Your task to perform on an android device: Empty the shopping cart on newegg.com. Image 0: 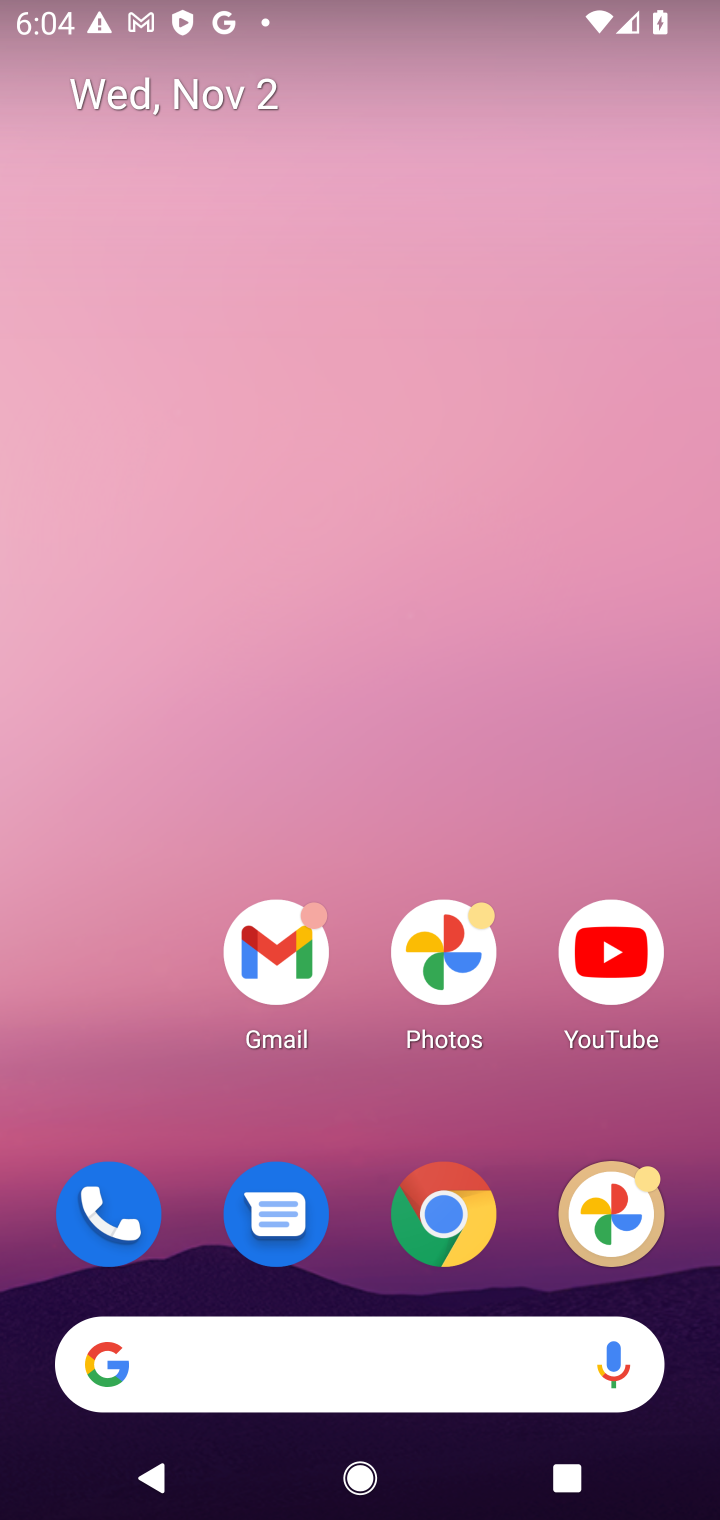
Step 0: click (446, 1208)
Your task to perform on an android device: Empty the shopping cart on newegg.com. Image 1: 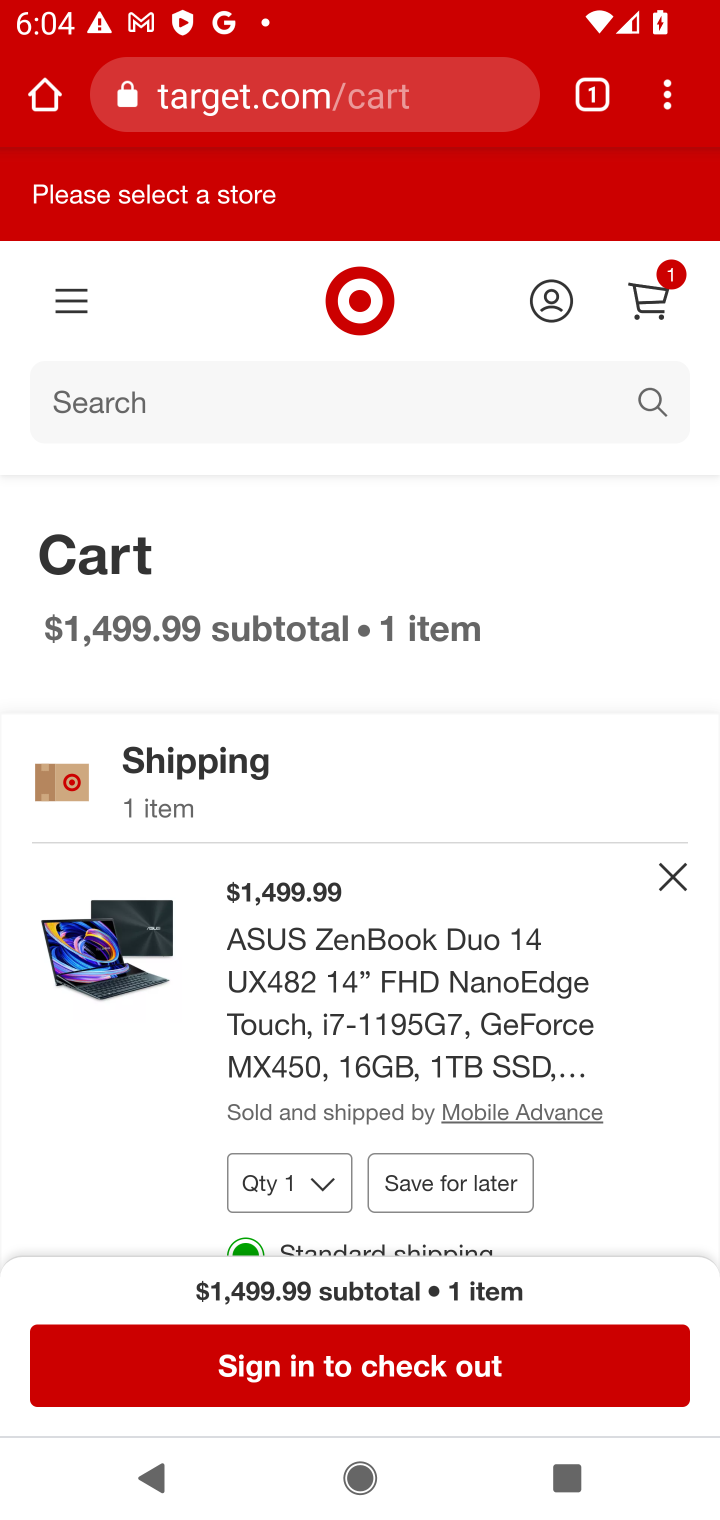
Step 1: click (369, 99)
Your task to perform on an android device: Empty the shopping cart on newegg.com. Image 2: 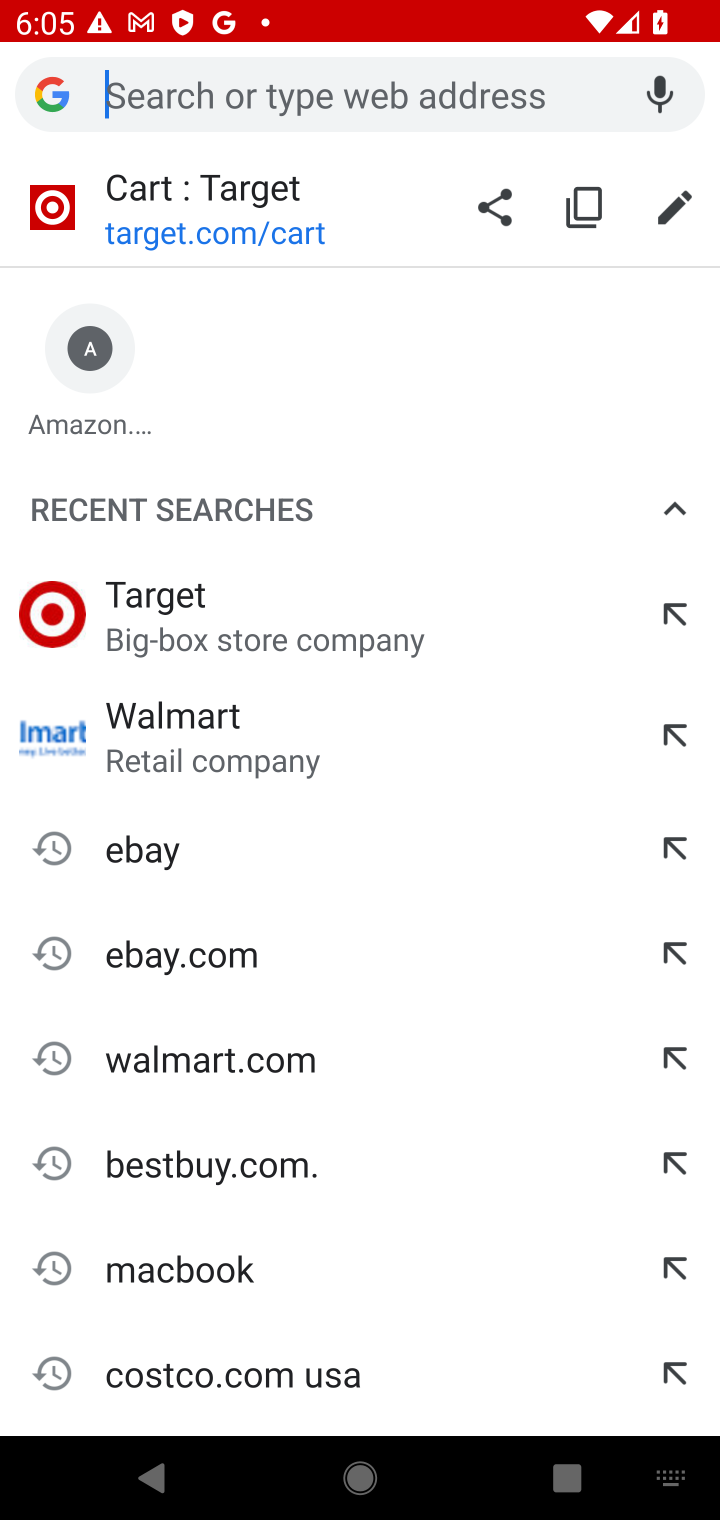
Step 2: type "newegg.com"
Your task to perform on an android device: Empty the shopping cart on newegg.com. Image 3: 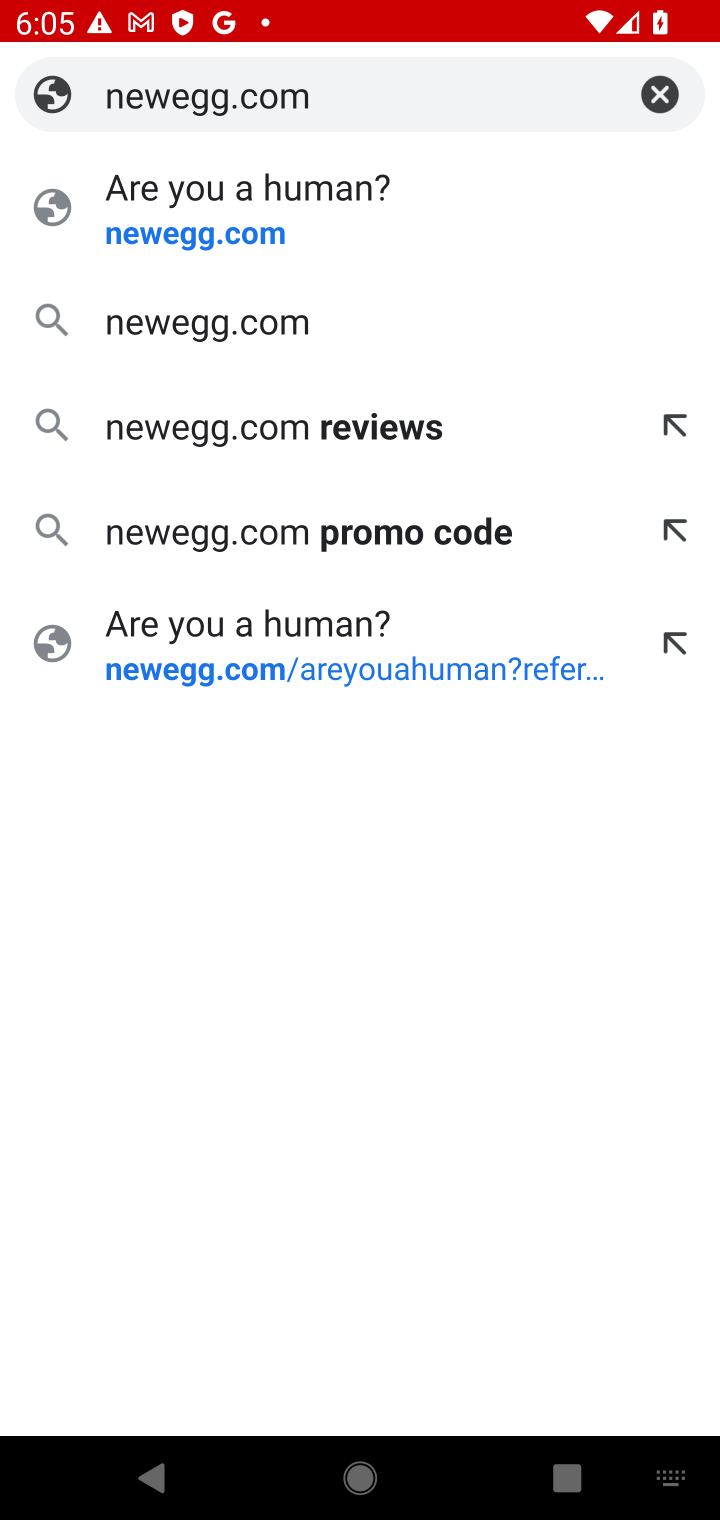
Step 3: click (222, 326)
Your task to perform on an android device: Empty the shopping cart on newegg.com. Image 4: 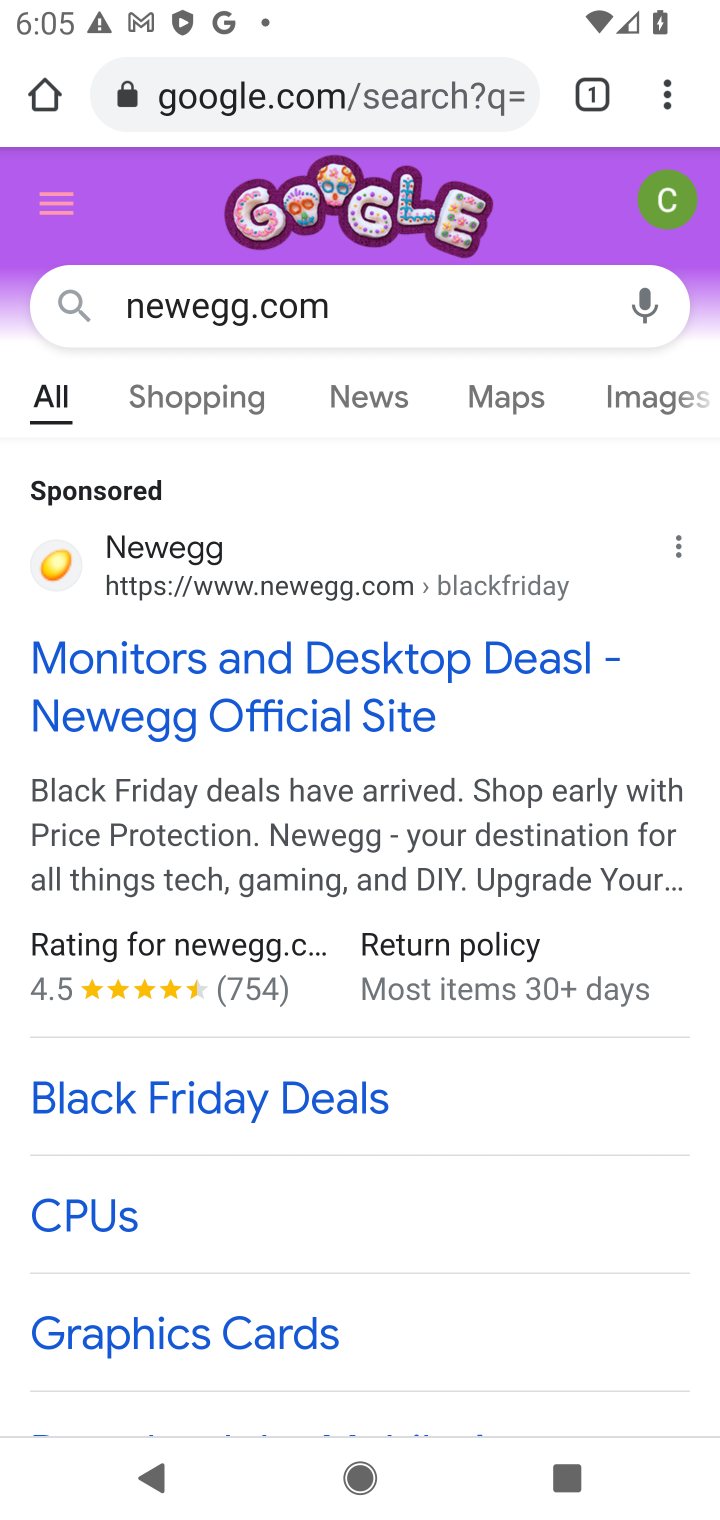
Step 4: drag from (412, 1259) to (512, 622)
Your task to perform on an android device: Empty the shopping cart on newegg.com. Image 5: 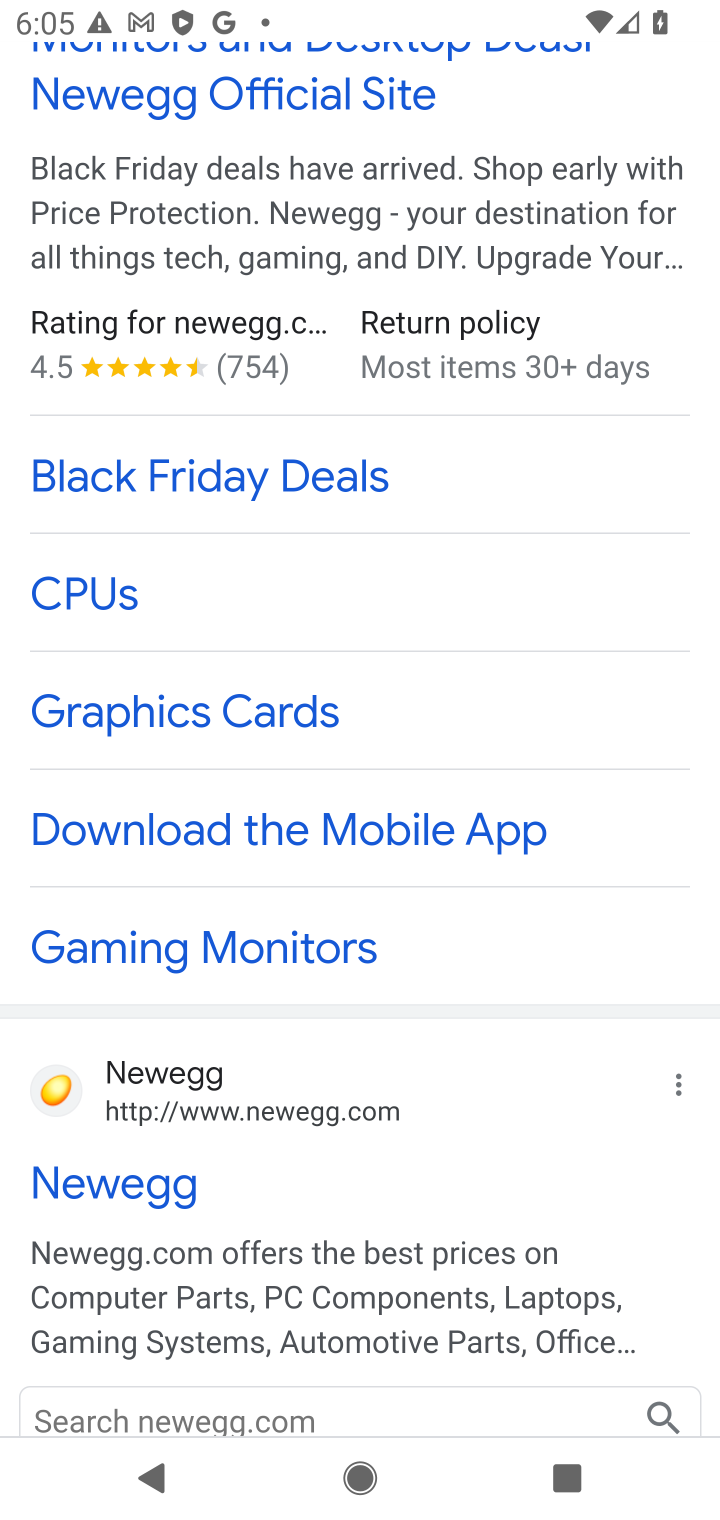
Step 5: click (205, 1195)
Your task to perform on an android device: Empty the shopping cart on newegg.com. Image 6: 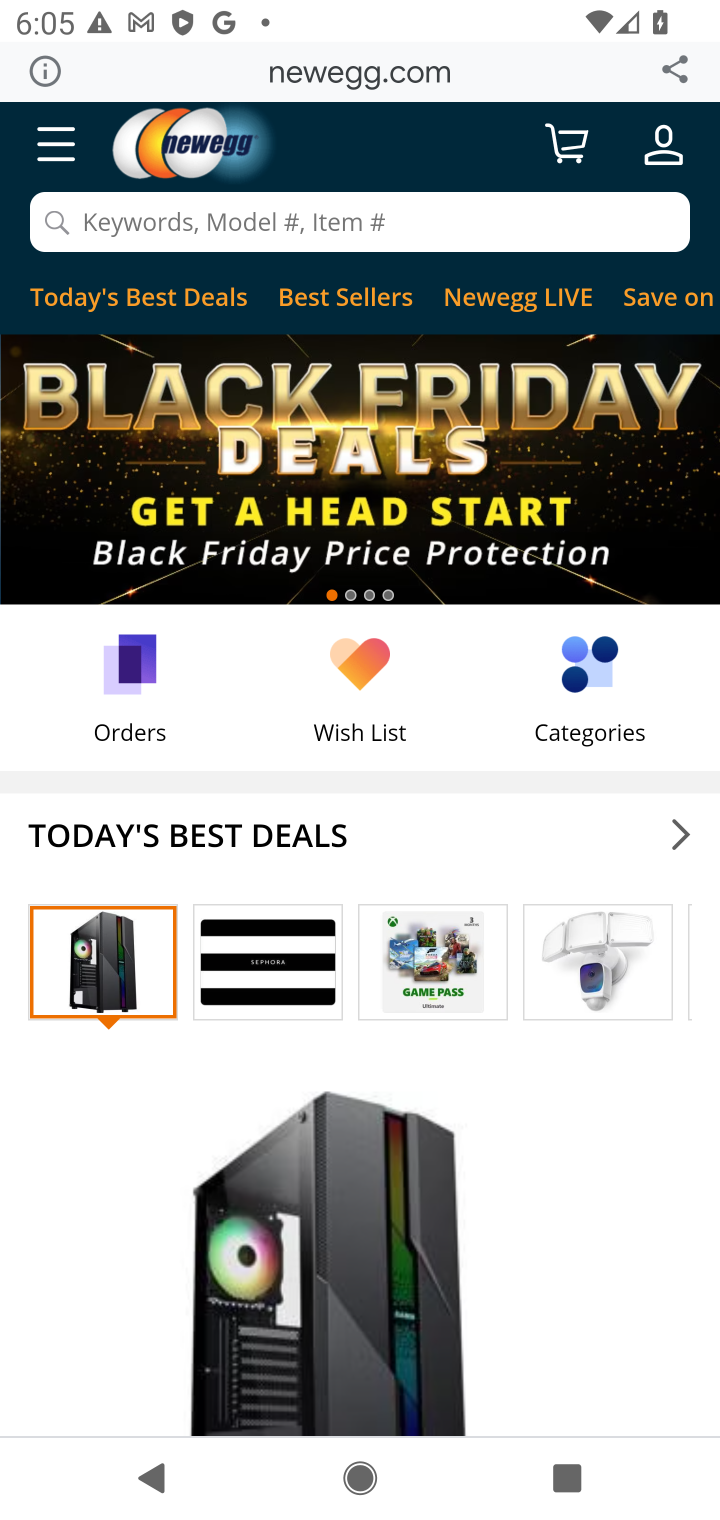
Step 6: click (577, 143)
Your task to perform on an android device: Empty the shopping cart on newegg.com. Image 7: 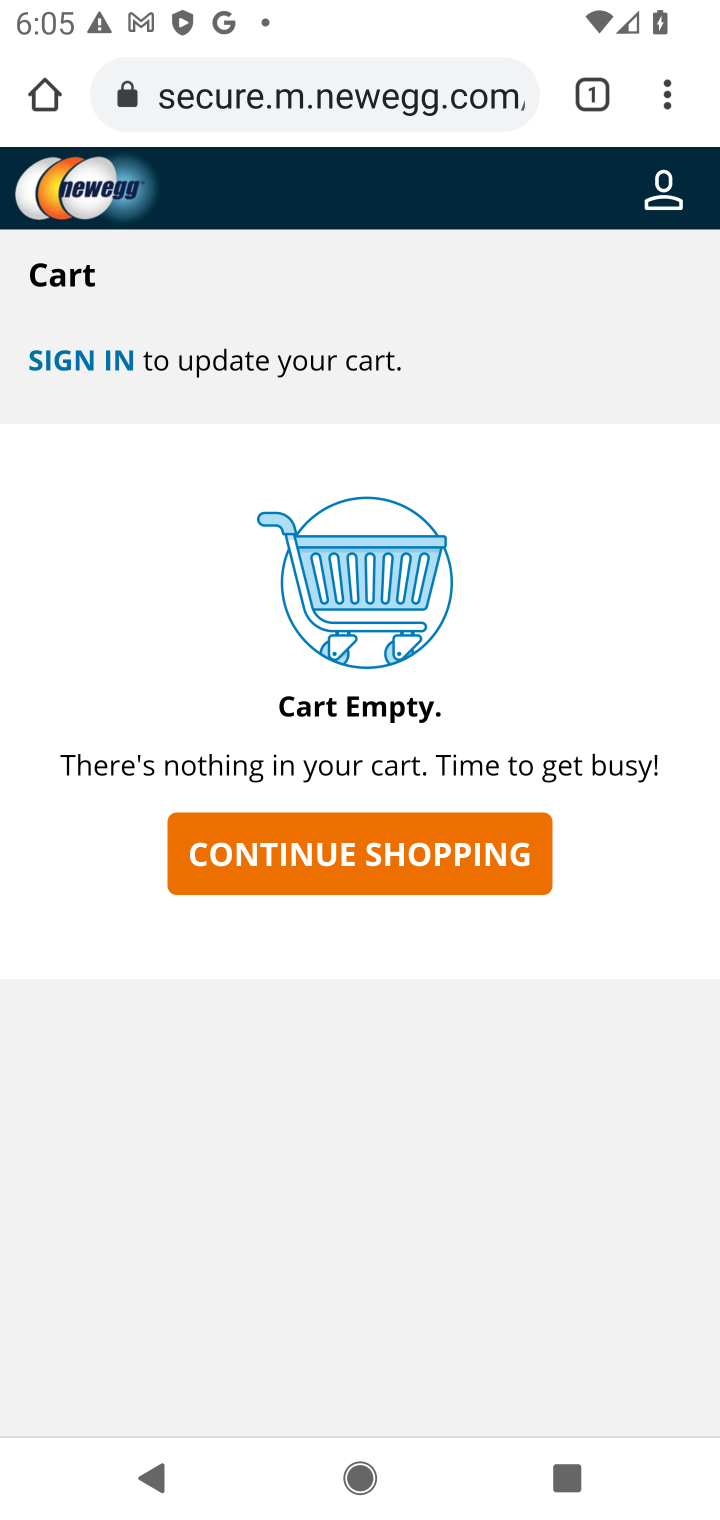
Step 7: task complete